Your task to perform on an android device: change alarm snooze length Image 0: 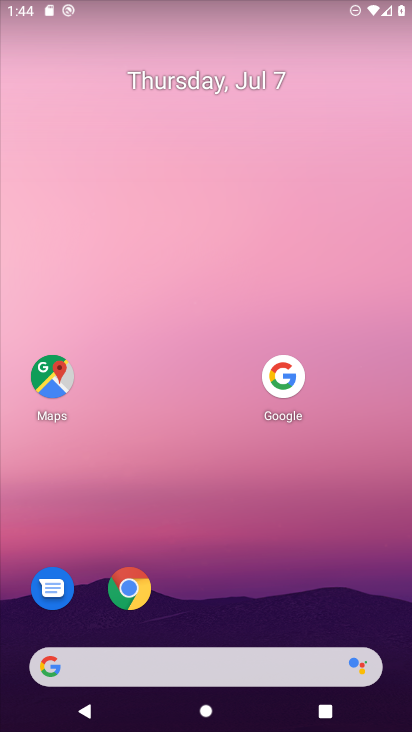
Step 0: drag from (205, 673) to (358, 175)
Your task to perform on an android device: change alarm snooze length Image 1: 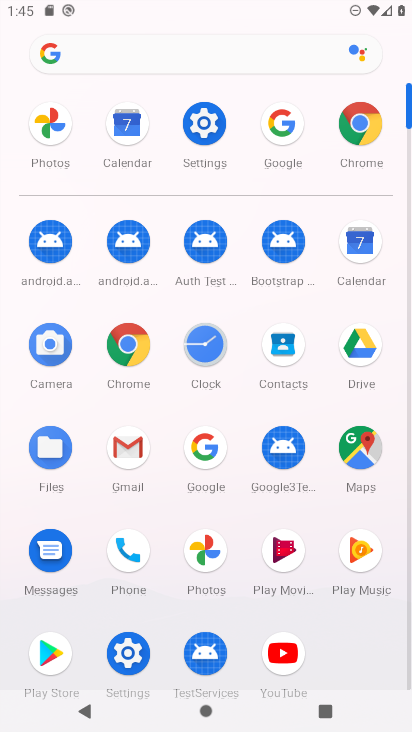
Step 1: click (208, 347)
Your task to perform on an android device: change alarm snooze length Image 2: 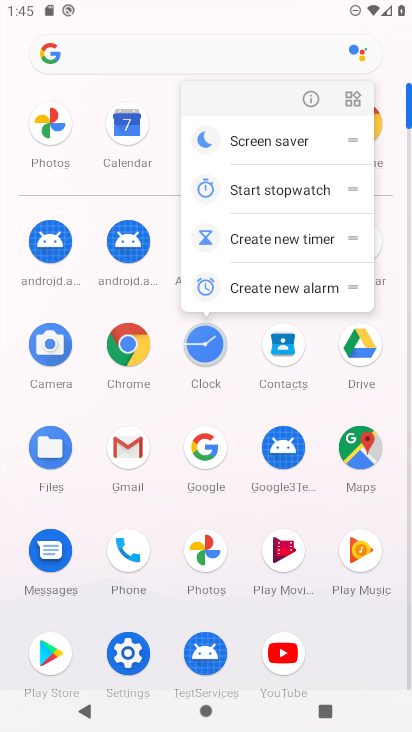
Step 2: click (203, 357)
Your task to perform on an android device: change alarm snooze length Image 3: 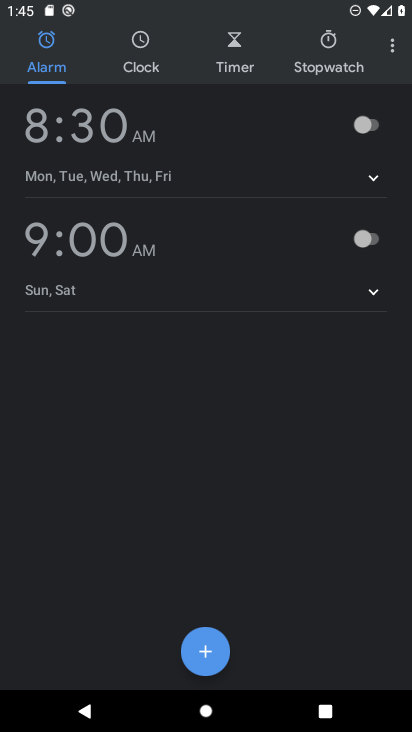
Step 3: click (392, 52)
Your task to perform on an android device: change alarm snooze length Image 4: 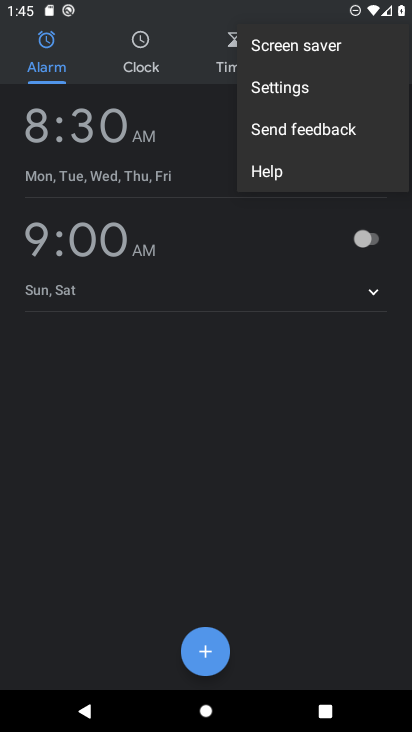
Step 4: click (284, 88)
Your task to perform on an android device: change alarm snooze length Image 5: 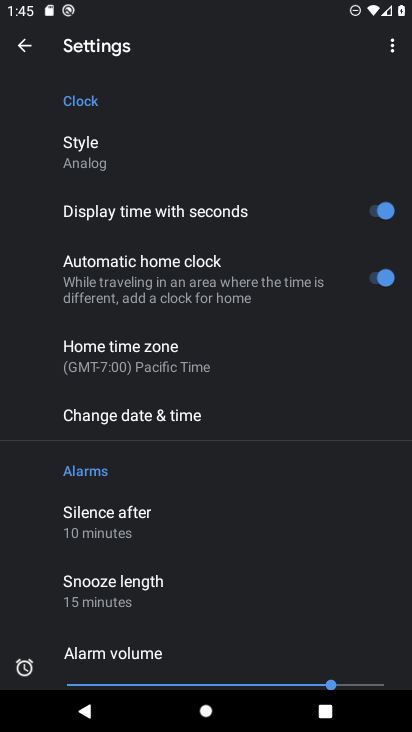
Step 5: click (144, 572)
Your task to perform on an android device: change alarm snooze length Image 6: 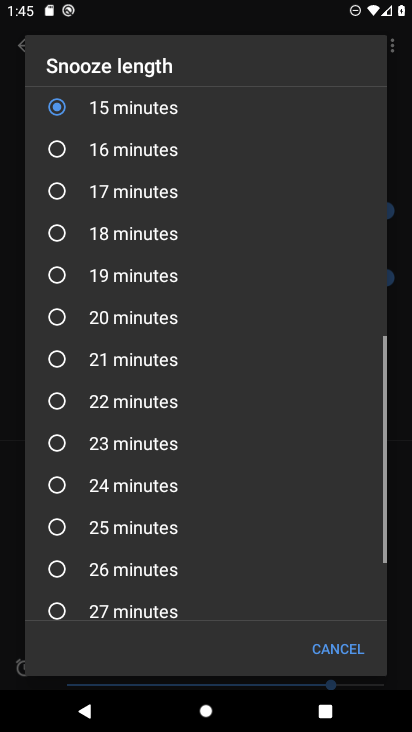
Step 6: drag from (127, 137) to (119, 474)
Your task to perform on an android device: change alarm snooze length Image 7: 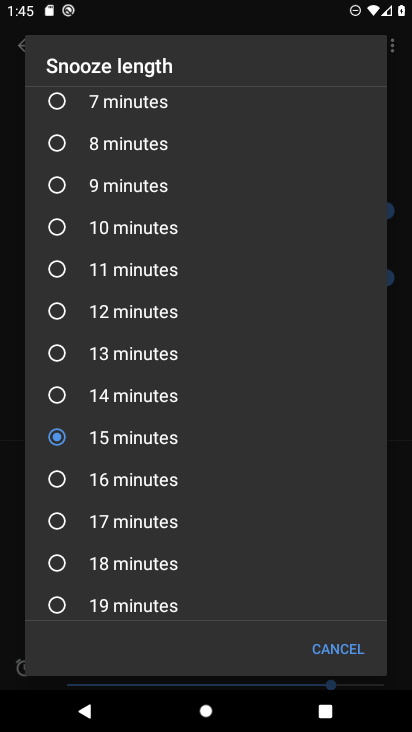
Step 7: click (55, 224)
Your task to perform on an android device: change alarm snooze length Image 8: 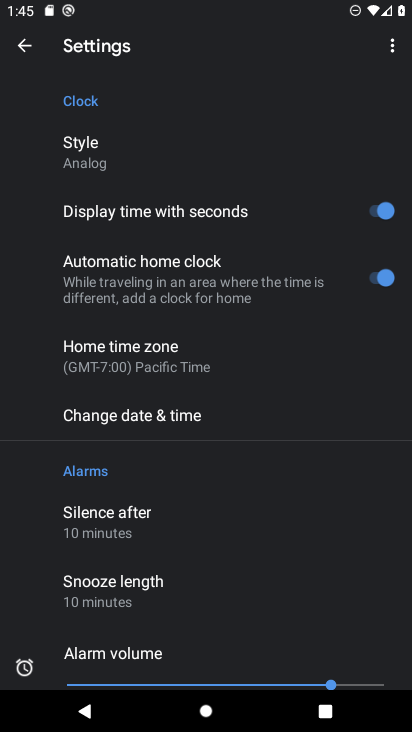
Step 8: task complete